Your task to perform on an android device: delete the emails in spam in the gmail app Image 0: 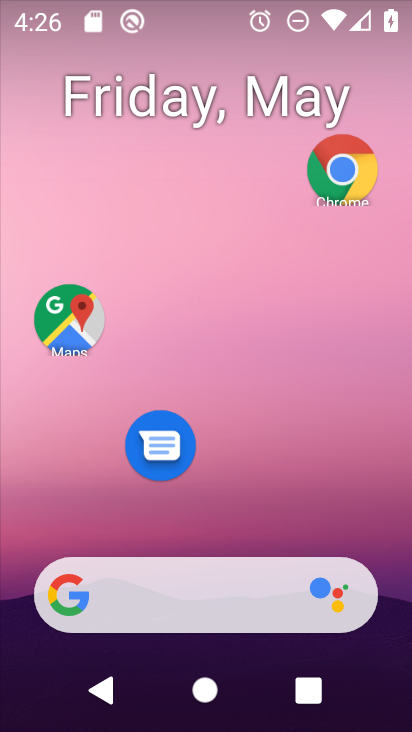
Step 0: drag from (208, 509) to (168, 5)
Your task to perform on an android device: delete the emails in spam in the gmail app Image 1: 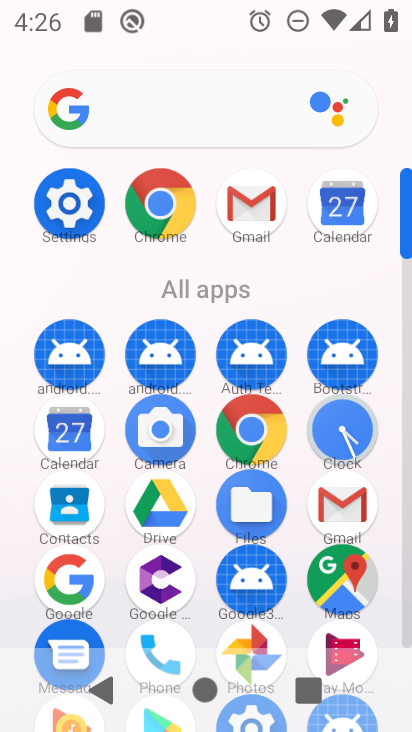
Step 1: click (360, 511)
Your task to perform on an android device: delete the emails in spam in the gmail app Image 2: 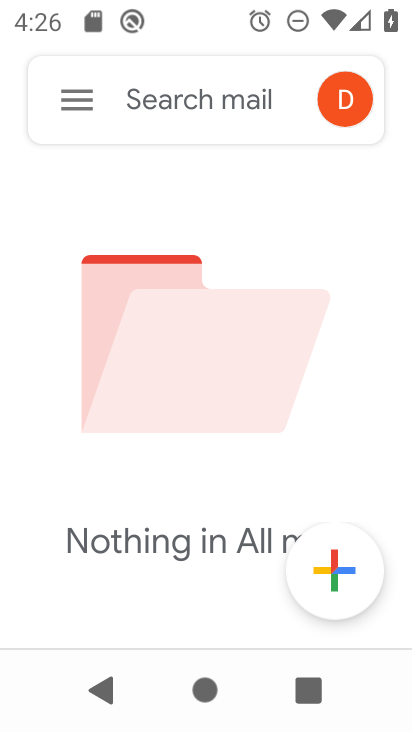
Step 2: click (70, 108)
Your task to perform on an android device: delete the emails in spam in the gmail app Image 3: 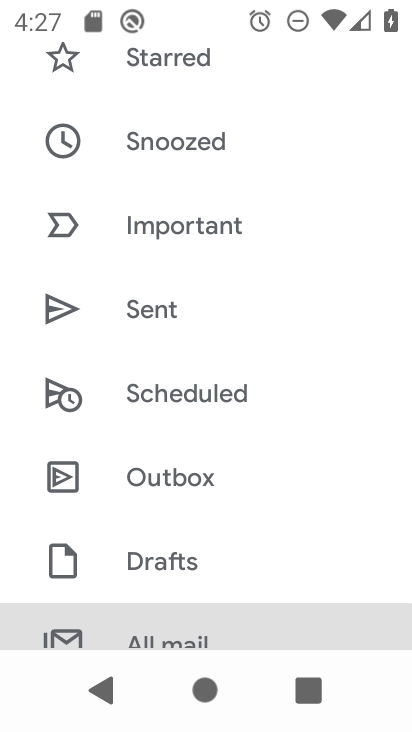
Step 3: drag from (200, 494) to (179, 145)
Your task to perform on an android device: delete the emails in spam in the gmail app Image 4: 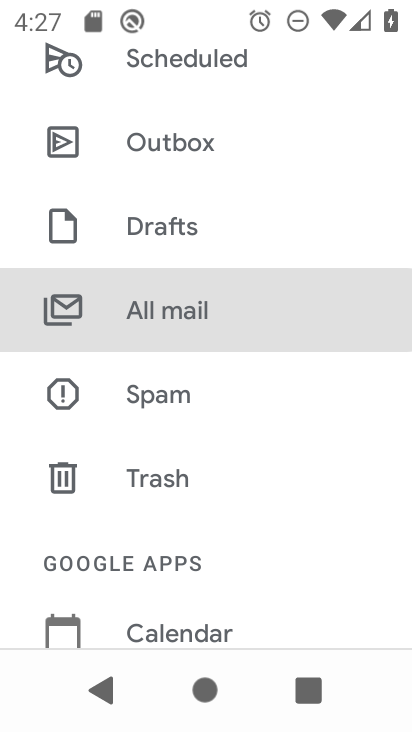
Step 4: click (175, 305)
Your task to perform on an android device: delete the emails in spam in the gmail app Image 5: 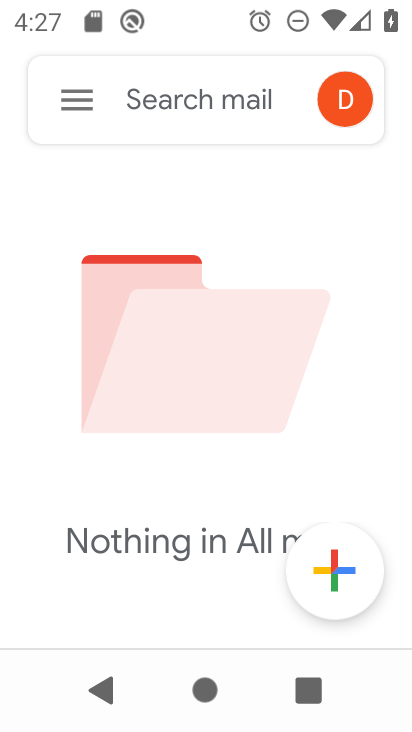
Step 5: click (80, 115)
Your task to perform on an android device: delete the emails in spam in the gmail app Image 6: 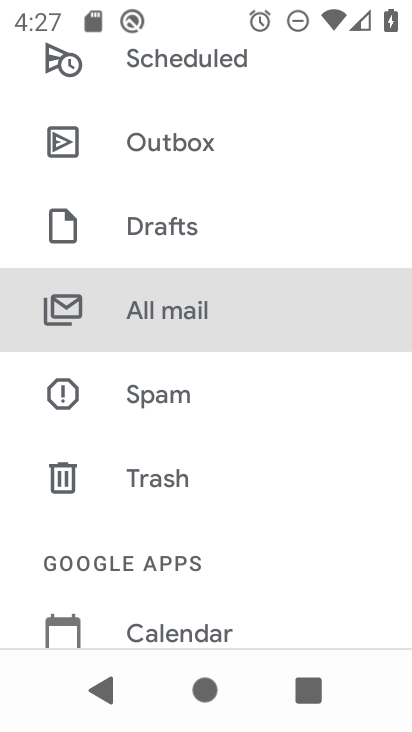
Step 6: click (173, 406)
Your task to perform on an android device: delete the emails in spam in the gmail app Image 7: 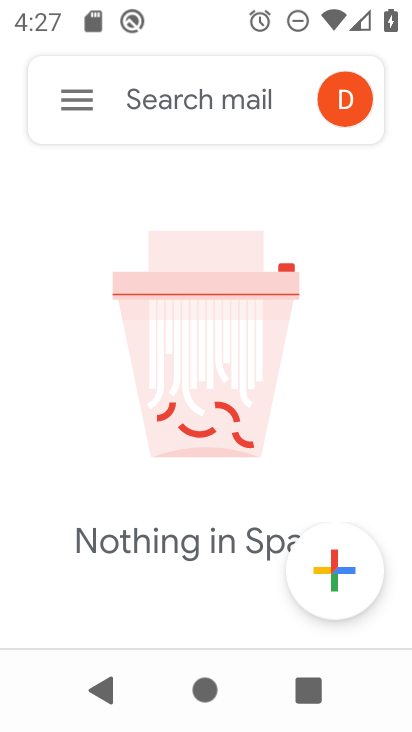
Step 7: task complete